Your task to perform on an android device: Go to wifi settings Image 0: 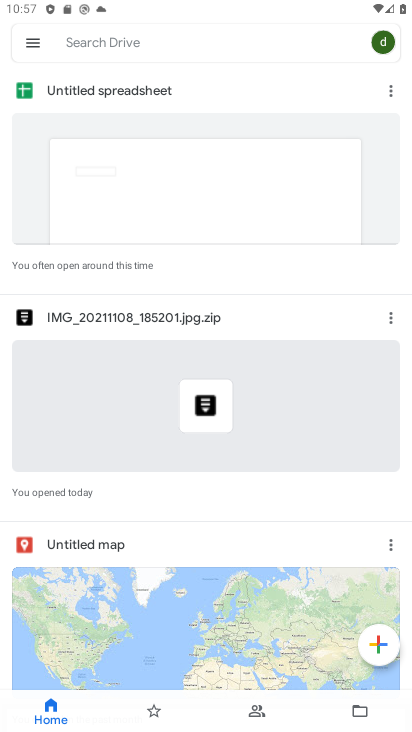
Step 0: press back button
Your task to perform on an android device: Go to wifi settings Image 1: 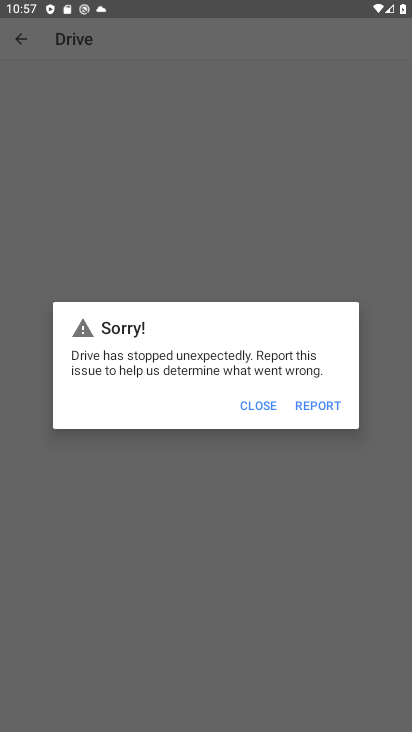
Step 1: press home button
Your task to perform on an android device: Go to wifi settings Image 2: 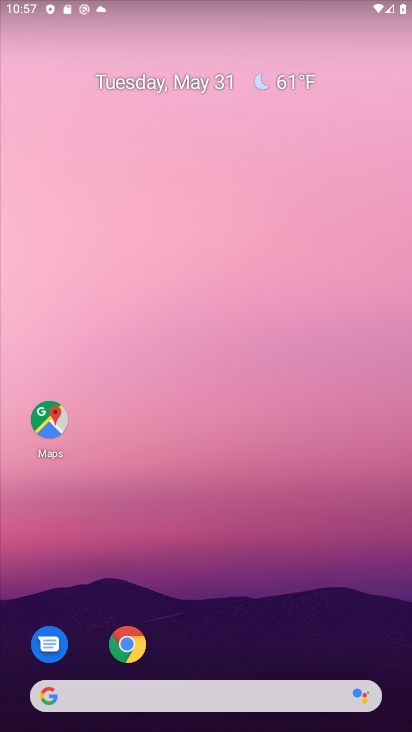
Step 2: drag from (74, 7) to (130, 526)
Your task to perform on an android device: Go to wifi settings Image 3: 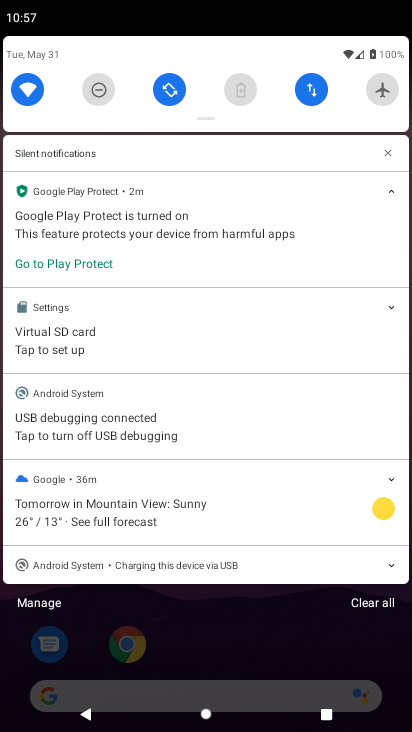
Step 3: click (28, 87)
Your task to perform on an android device: Go to wifi settings Image 4: 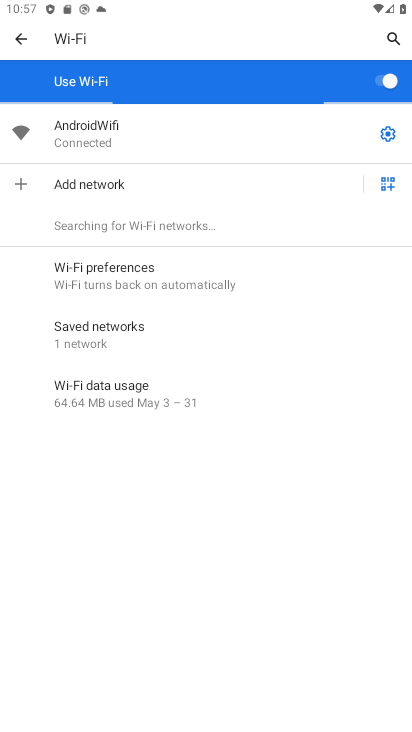
Step 4: task complete